Your task to perform on an android device: Open the contacts Image 0: 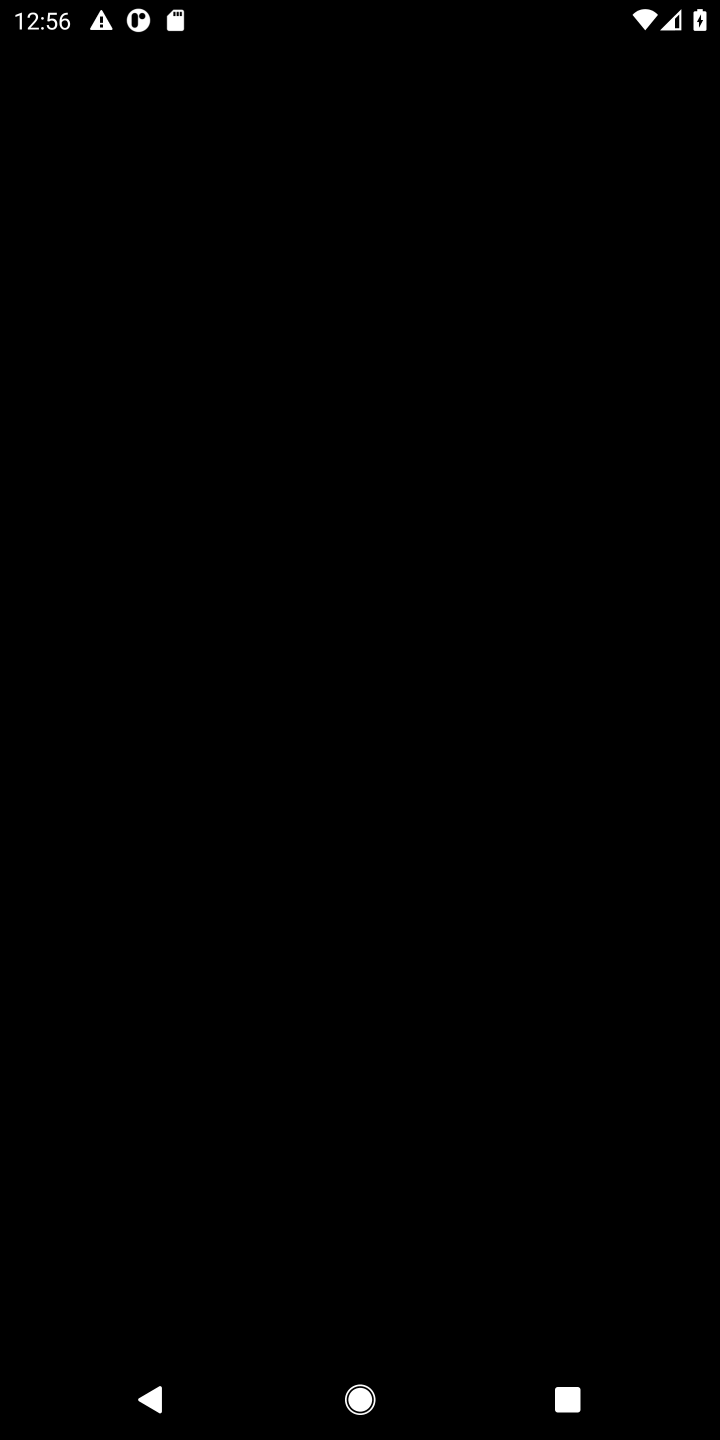
Step 0: press home button
Your task to perform on an android device: Open the contacts Image 1: 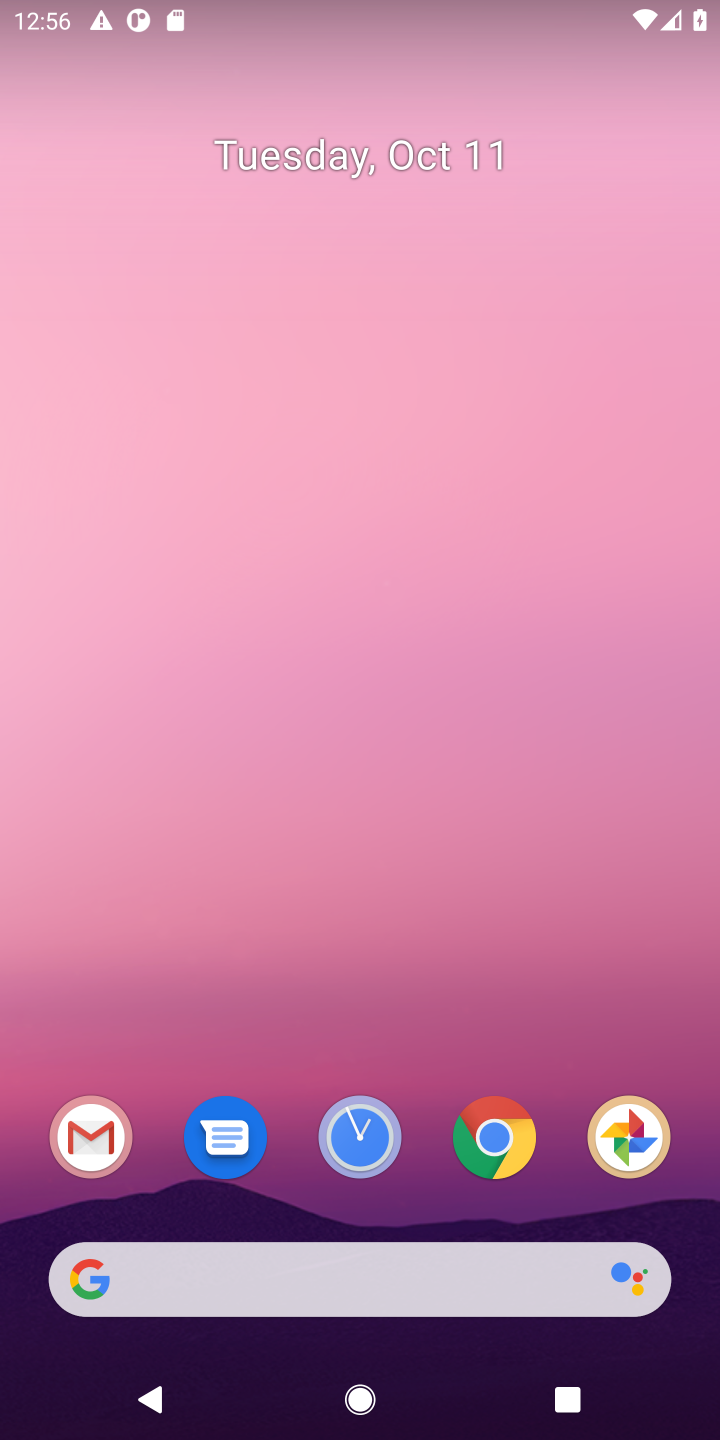
Step 1: drag from (375, 1039) to (500, 136)
Your task to perform on an android device: Open the contacts Image 2: 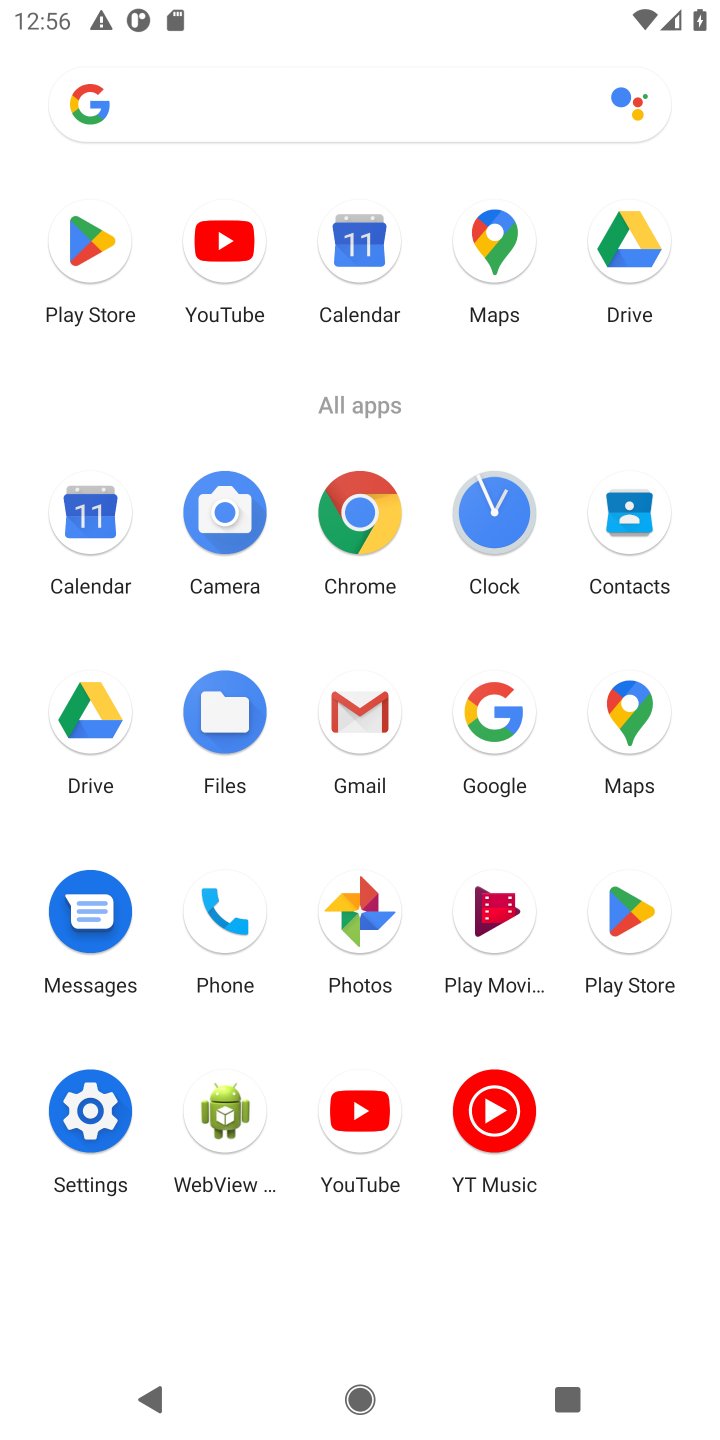
Step 2: click (604, 511)
Your task to perform on an android device: Open the contacts Image 3: 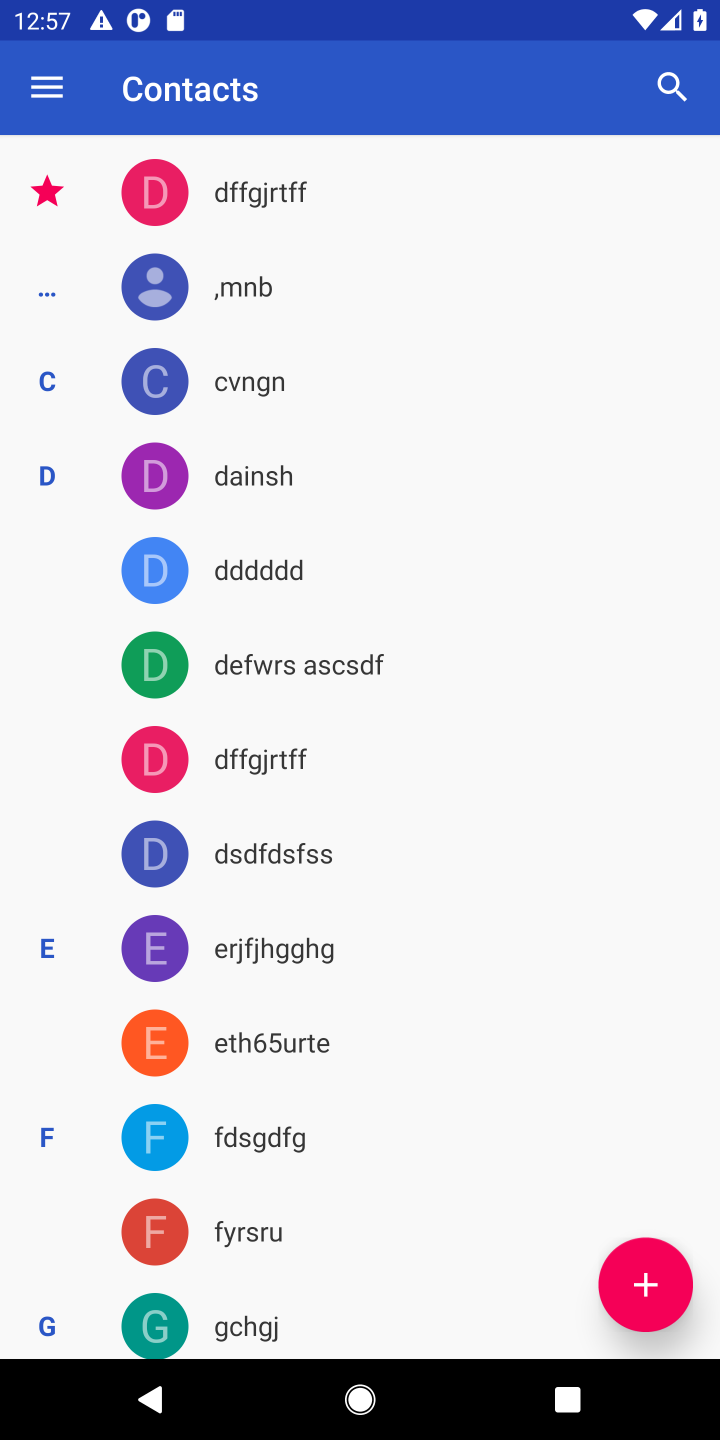
Step 3: task complete